Your task to perform on an android device: open chrome privacy settings Image 0: 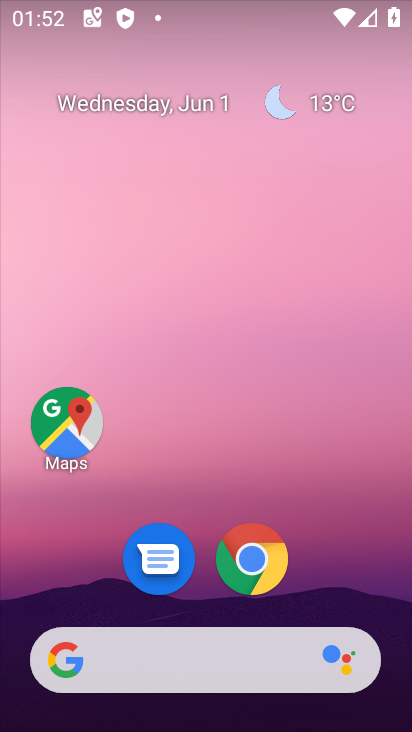
Step 0: click (263, 550)
Your task to perform on an android device: open chrome privacy settings Image 1: 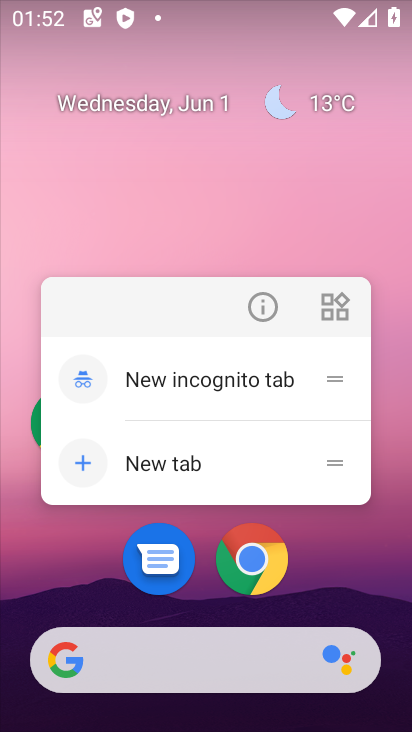
Step 1: click (252, 563)
Your task to perform on an android device: open chrome privacy settings Image 2: 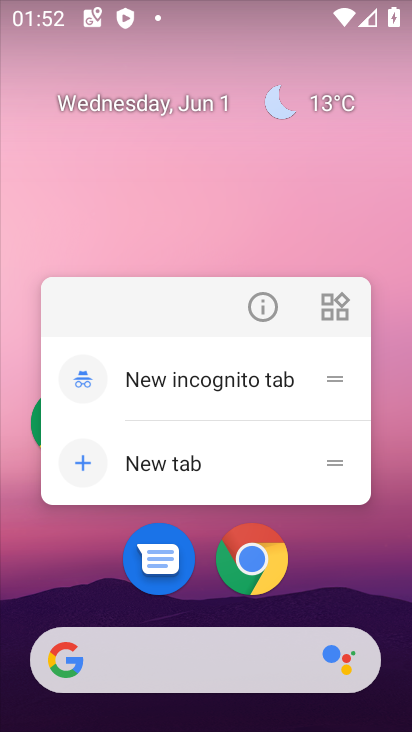
Step 2: click (256, 561)
Your task to perform on an android device: open chrome privacy settings Image 3: 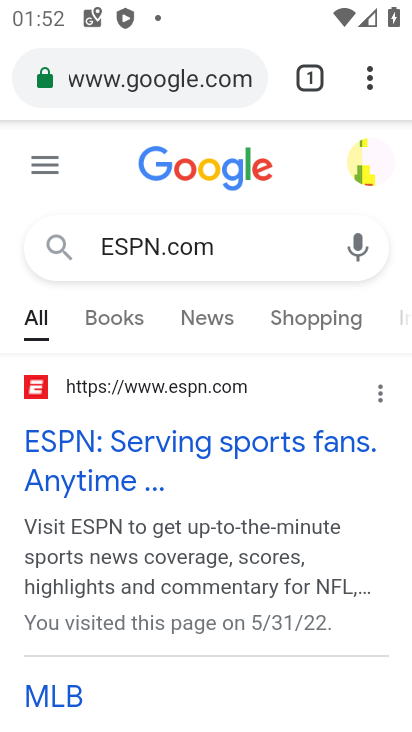
Step 3: click (363, 73)
Your task to perform on an android device: open chrome privacy settings Image 4: 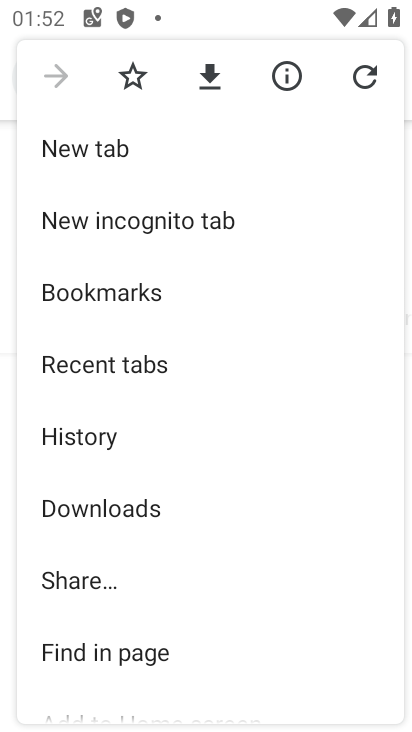
Step 4: drag from (236, 657) to (241, 380)
Your task to perform on an android device: open chrome privacy settings Image 5: 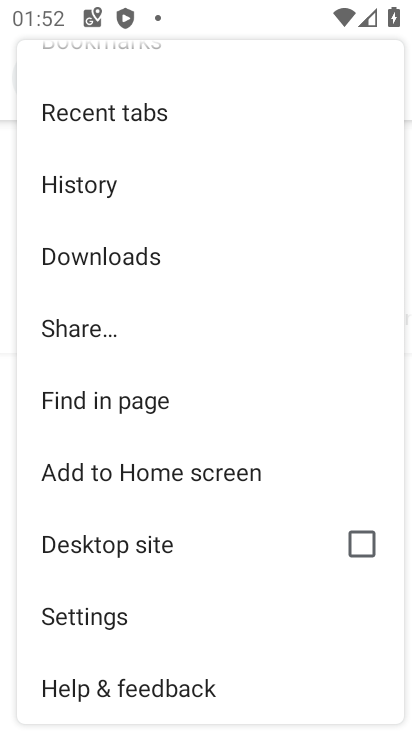
Step 5: click (99, 614)
Your task to perform on an android device: open chrome privacy settings Image 6: 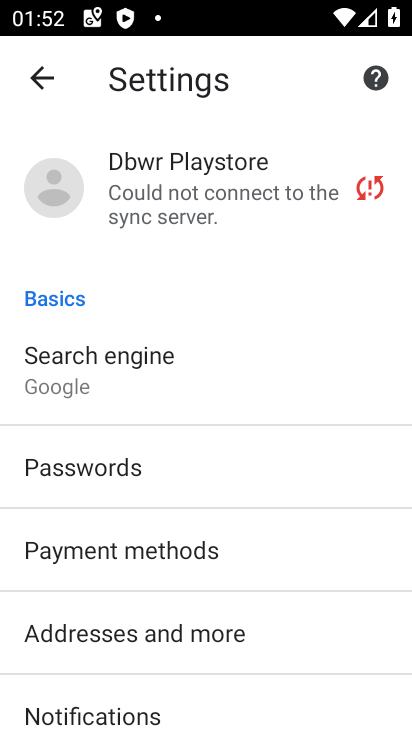
Step 6: drag from (292, 673) to (265, 336)
Your task to perform on an android device: open chrome privacy settings Image 7: 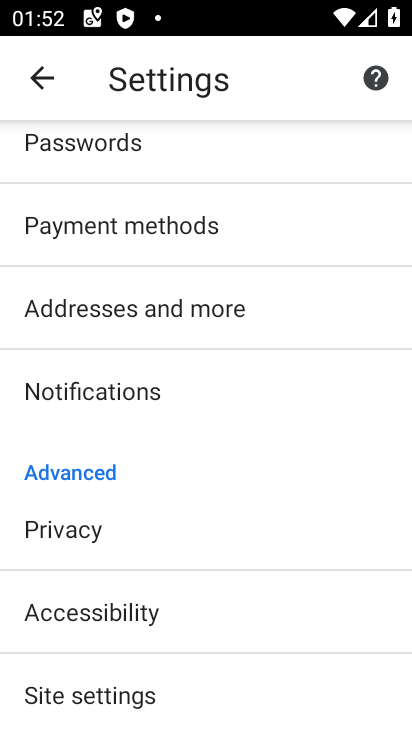
Step 7: drag from (234, 702) to (249, 355)
Your task to perform on an android device: open chrome privacy settings Image 8: 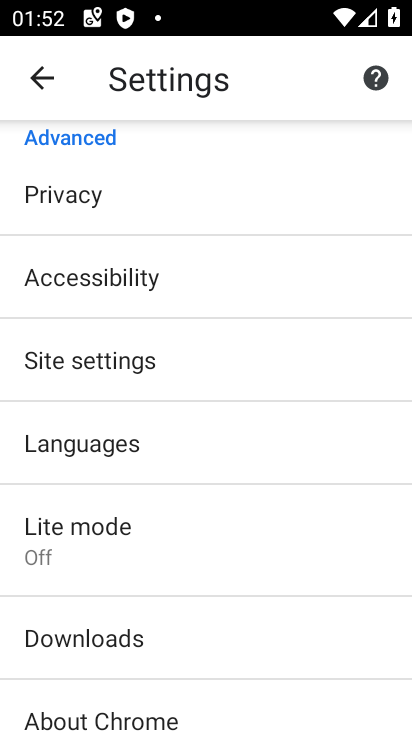
Step 8: click (57, 193)
Your task to perform on an android device: open chrome privacy settings Image 9: 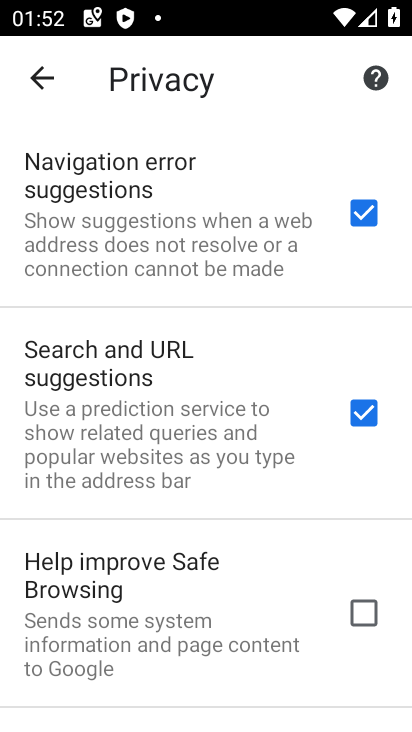
Step 9: task complete